Your task to perform on an android device: show emergency info Image 0: 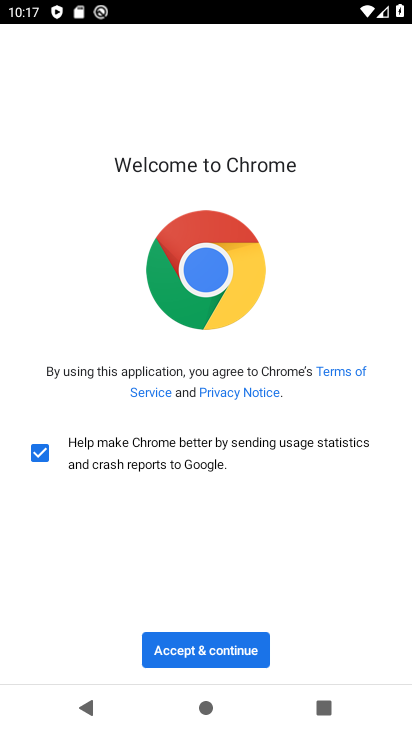
Step 0: press home button
Your task to perform on an android device: show emergency info Image 1: 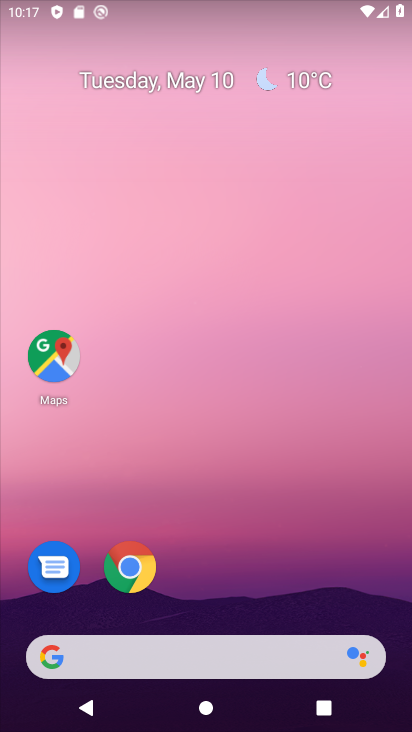
Step 1: drag from (252, 589) to (241, 3)
Your task to perform on an android device: show emergency info Image 2: 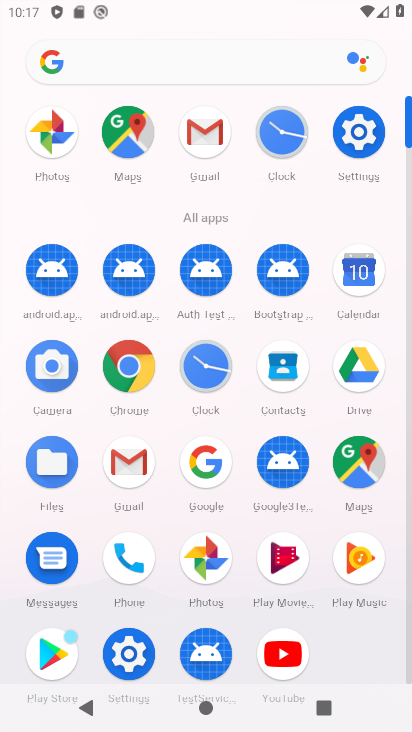
Step 2: click (367, 143)
Your task to perform on an android device: show emergency info Image 3: 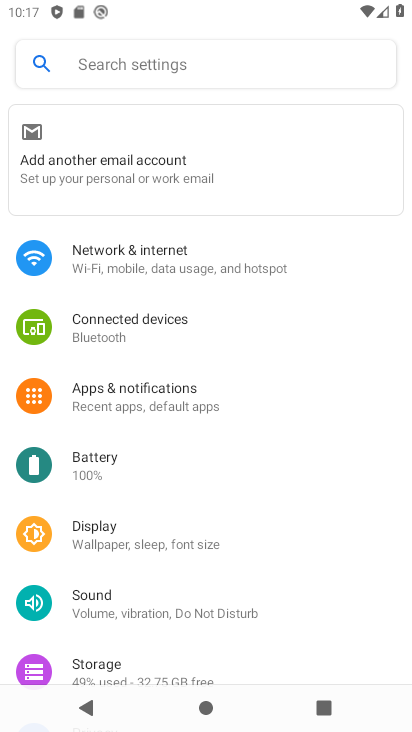
Step 3: drag from (358, 648) to (322, 83)
Your task to perform on an android device: show emergency info Image 4: 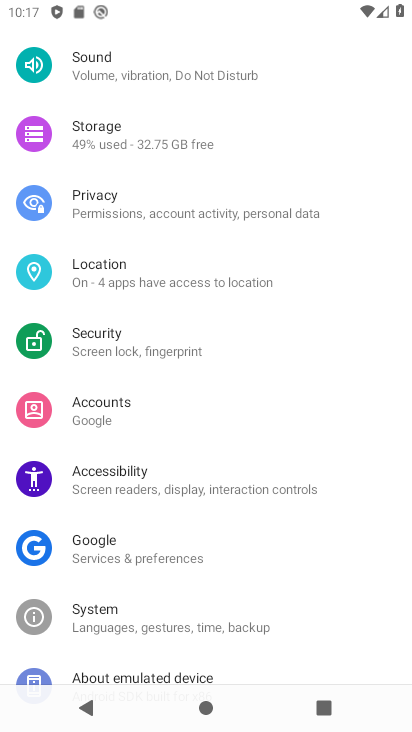
Step 4: drag from (290, 549) to (270, 84)
Your task to perform on an android device: show emergency info Image 5: 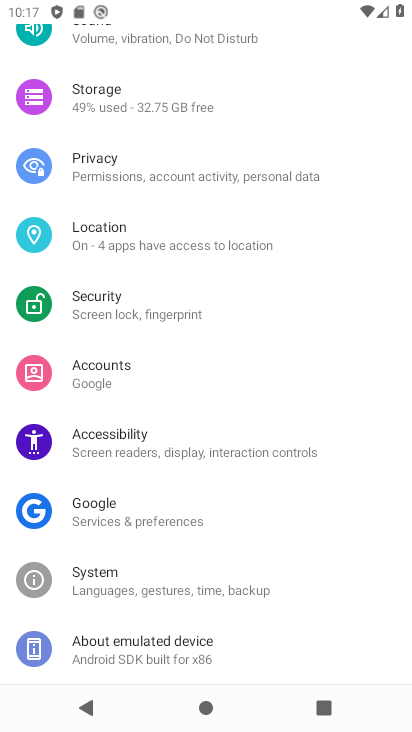
Step 5: click (133, 647)
Your task to perform on an android device: show emergency info Image 6: 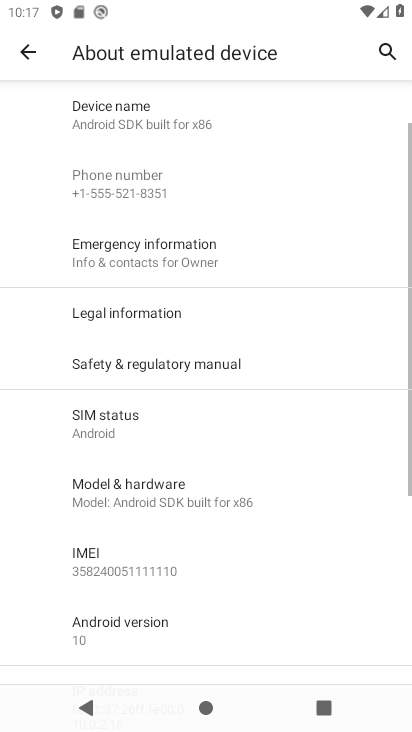
Step 6: click (124, 248)
Your task to perform on an android device: show emergency info Image 7: 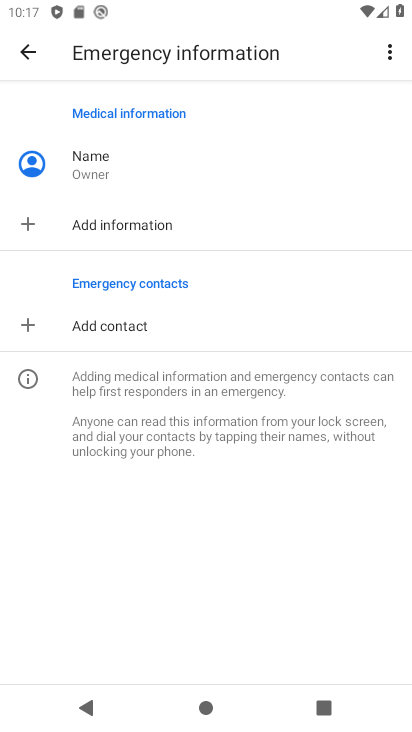
Step 7: task complete